Your task to perform on an android device: Set the phone to "Do not disturb". Image 0: 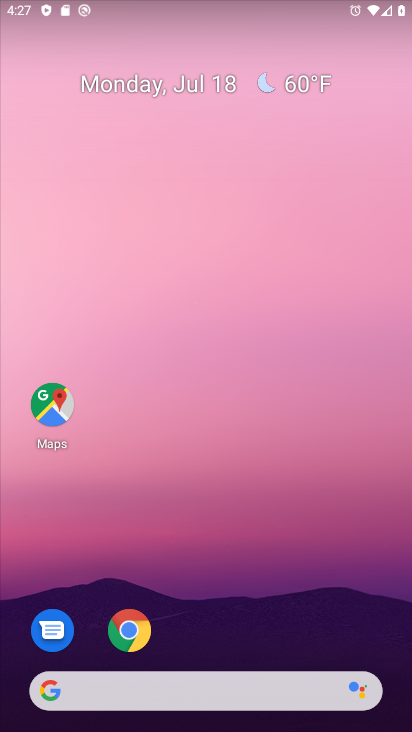
Step 0: drag from (305, 591) to (211, 4)
Your task to perform on an android device: Set the phone to "Do not disturb". Image 1: 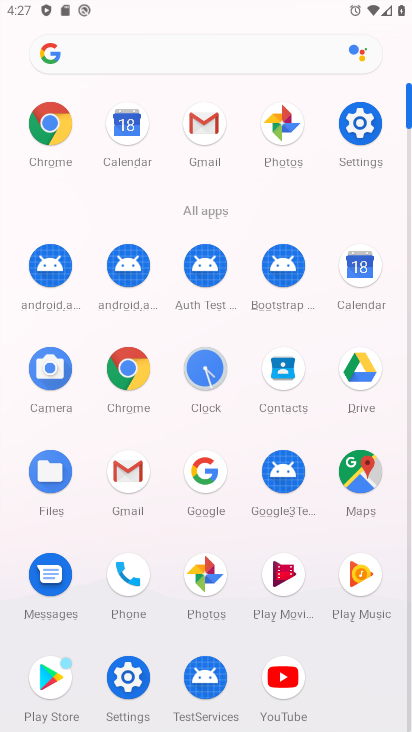
Step 1: click (350, 117)
Your task to perform on an android device: Set the phone to "Do not disturb". Image 2: 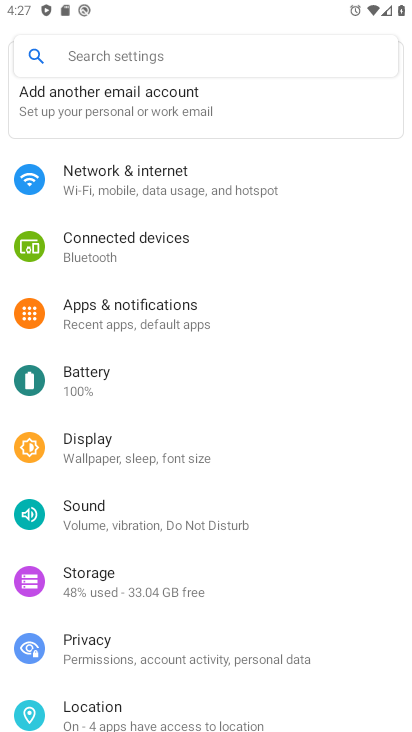
Step 2: click (90, 509)
Your task to perform on an android device: Set the phone to "Do not disturb". Image 3: 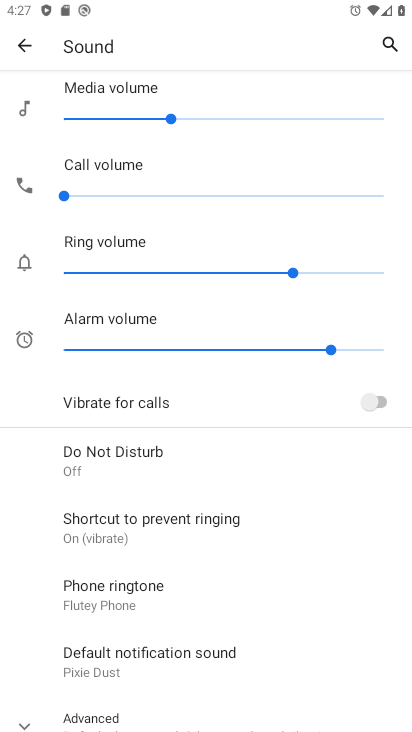
Step 3: click (108, 456)
Your task to perform on an android device: Set the phone to "Do not disturb". Image 4: 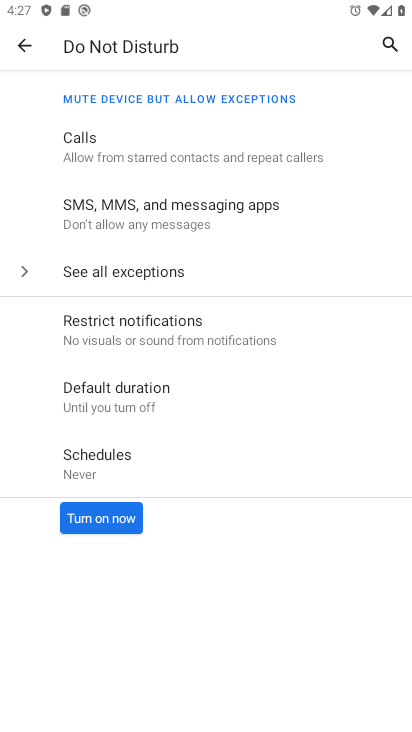
Step 4: click (103, 531)
Your task to perform on an android device: Set the phone to "Do not disturb". Image 5: 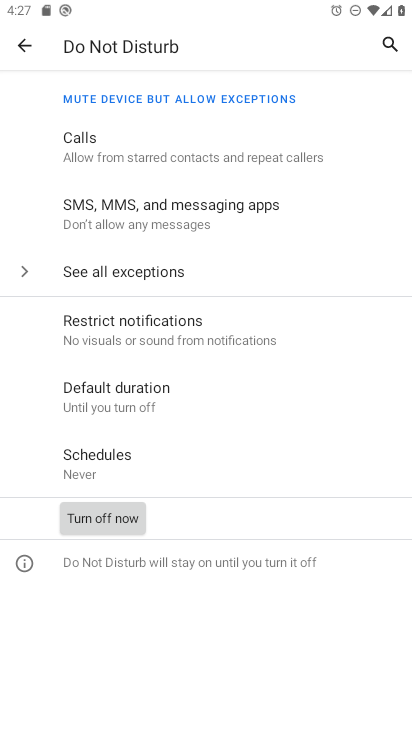
Step 5: task complete